Your task to perform on an android device: allow notifications from all sites in the chrome app Image 0: 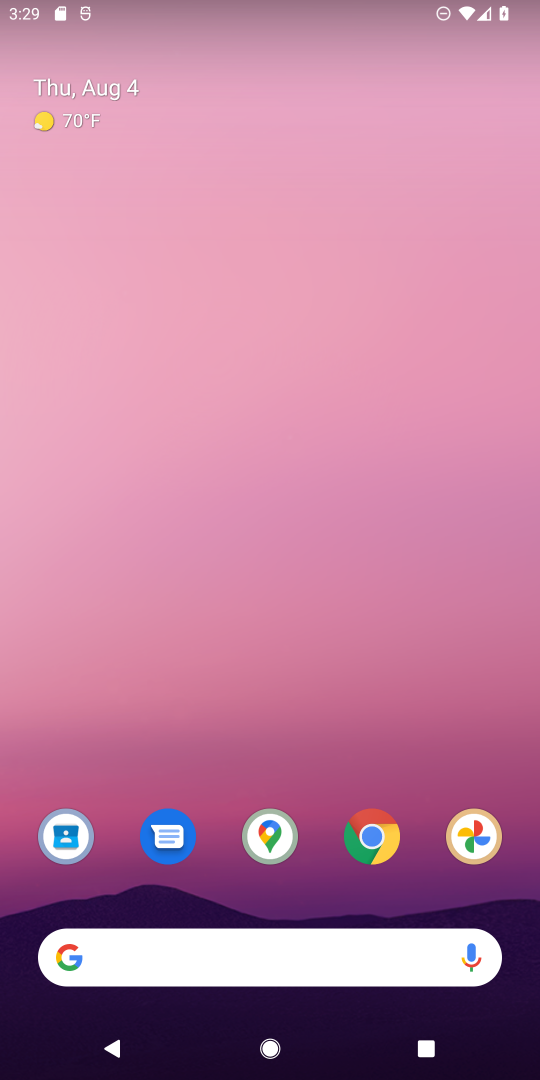
Step 0: click (364, 850)
Your task to perform on an android device: allow notifications from all sites in the chrome app Image 1: 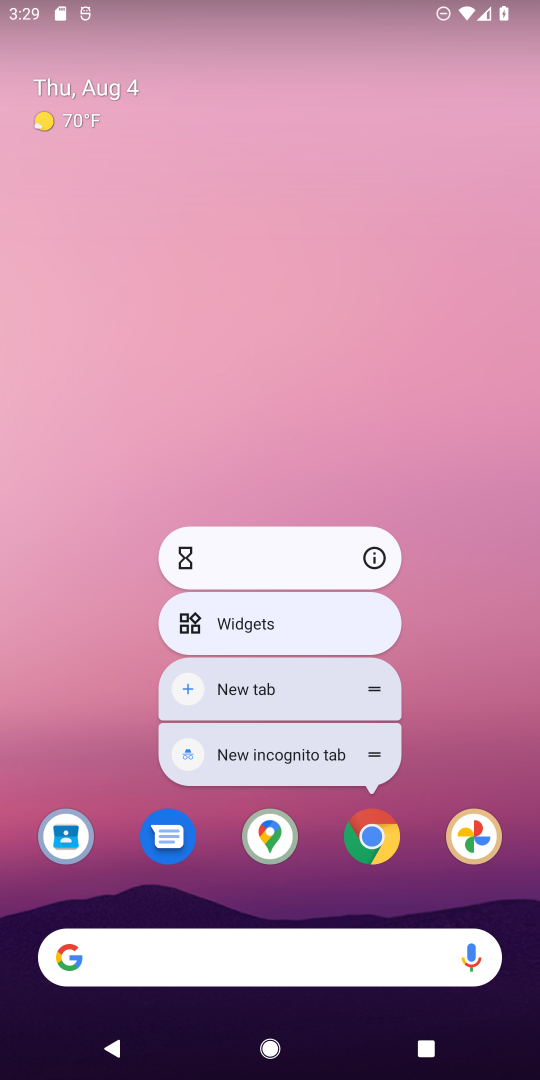
Step 1: click (387, 562)
Your task to perform on an android device: allow notifications from all sites in the chrome app Image 2: 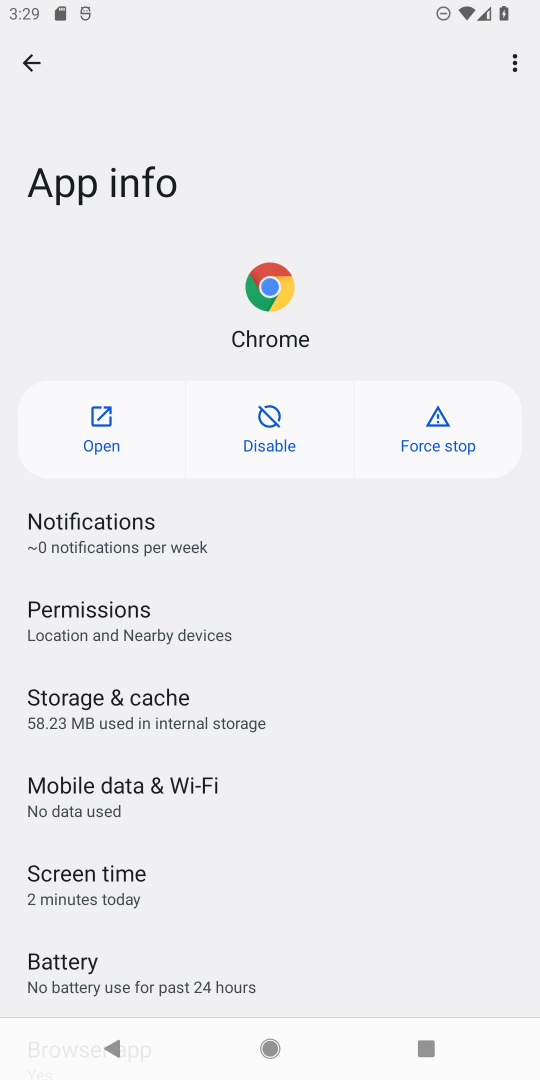
Step 2: click (208, 515)
Your task to perform on an android device: allow notifications from all sites in the chrome app Image 3: 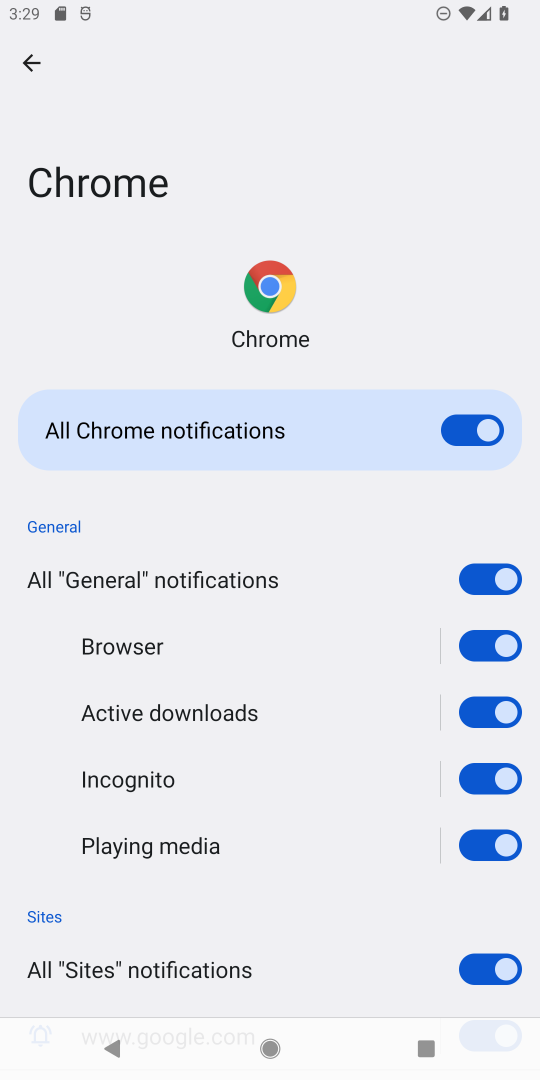
Step 3: task complete